Your task to perform on an android device: turn vacation reply on in the gmail app Image 0: 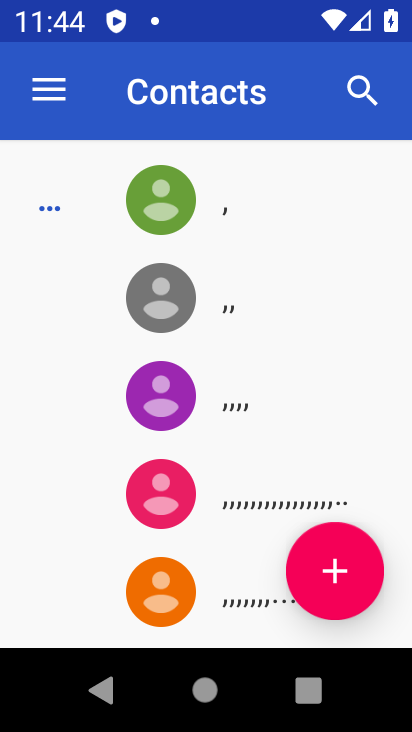
Step 0: press home button
Your task to perform on an android device: turn vacation reply on in the gmail app Image 1: 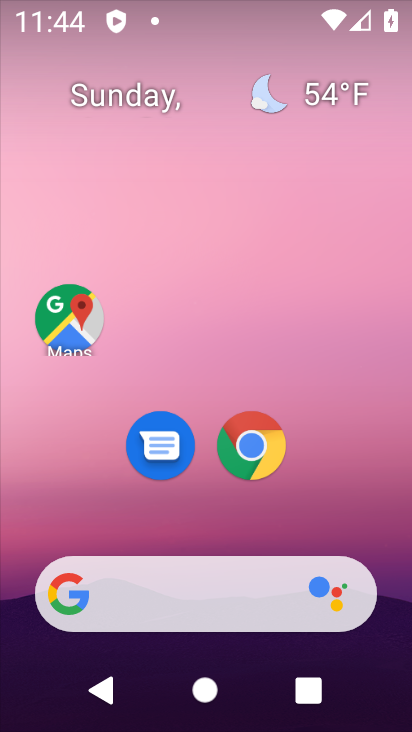
Step 1: drag from (334, 403) to (315, 119)
Your task to perform on an android device: turn vacation reply on in the gmail app Image 2: 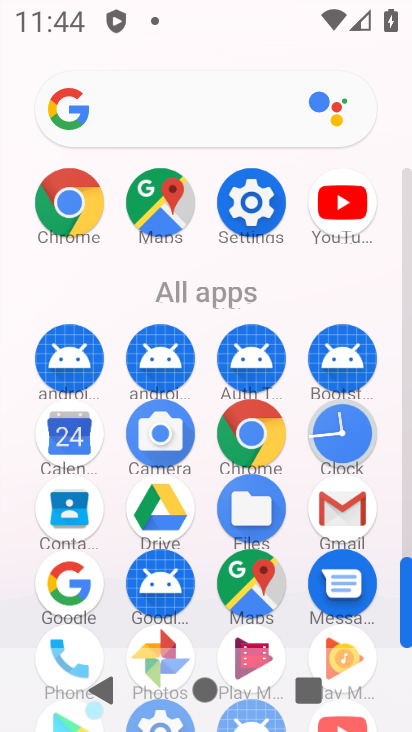
Step 2: click (344, 503)
Your task to perform on an android device: turn vacation reply on in the gmail app Image 3: 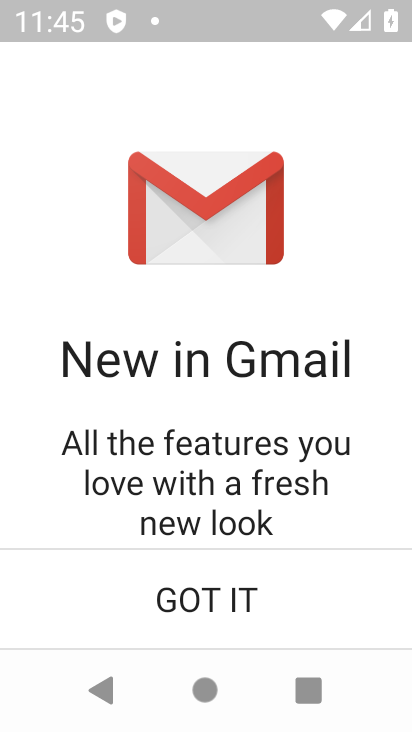
Step 3: click (234, 600)
Your task to perform on an android device: turn vacation reply on in the gmail app Image 4: 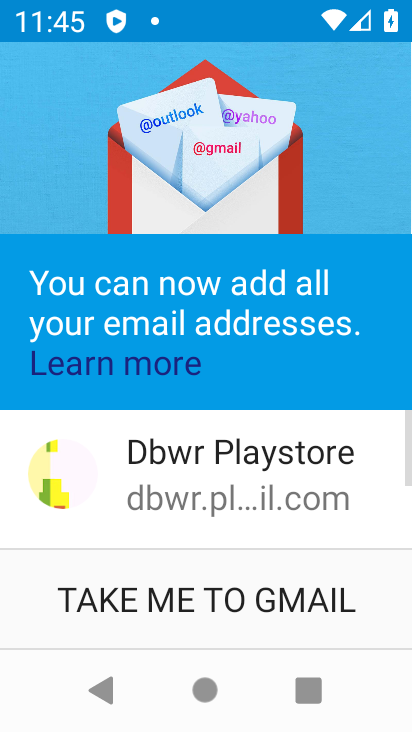
Step 4: click (235, 598)
Your task to perform on an android device: turn vacation reply on in the gmail app Image 5: 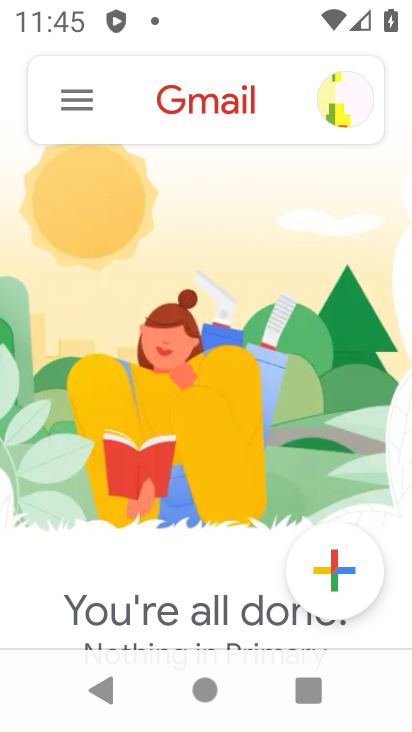
Step 5: click (80, 103)
Your task to perform on an android device: turn vacation reply on in the gmail app Image 6: 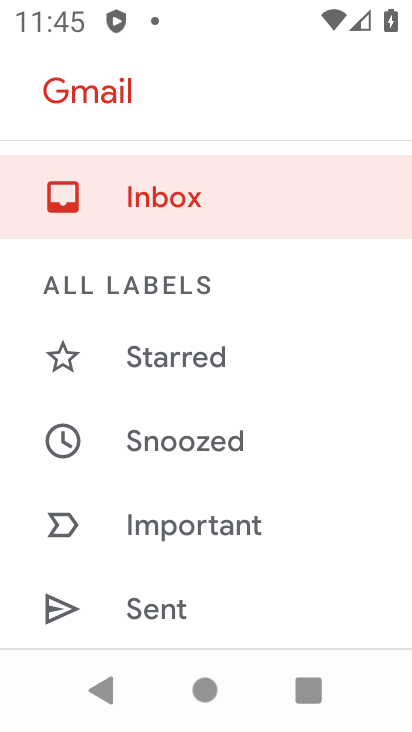
Step 6: drag from (215, 566) to (244, 225)
Your task to perform on an android device: turn vacation reply on in the gmail app Image 7: 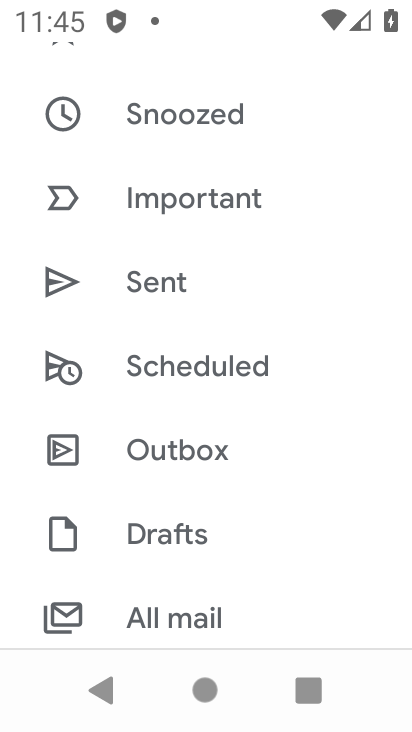
Step 7: drag from (239, 603) to (240, 193)
Your task to perform on an android device: turn vacation reply on in the gmail app Image 8: 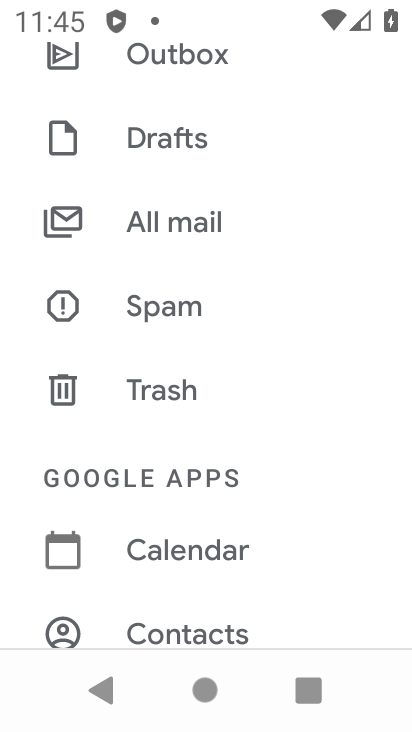
Step 8: drag from (246, 595) to (233, 213)
Your task to perform on an android device: turn vacation reply on in the gmail app Image 9: 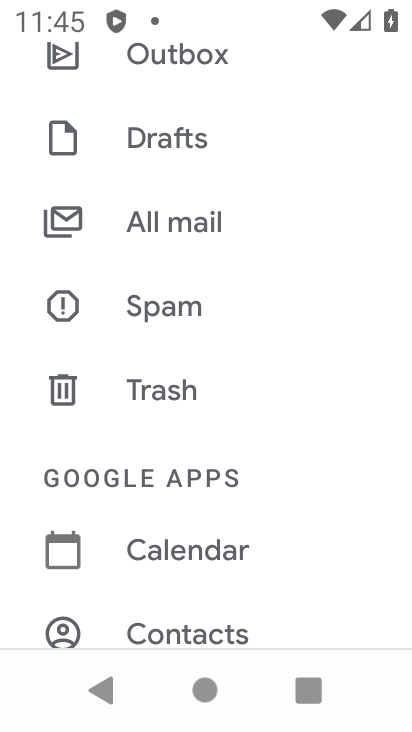
Step 9: drag from (291, 535) to (256, 222)
Your task to perform on an android device: turn vacation reply on in the gmail app Image 10: 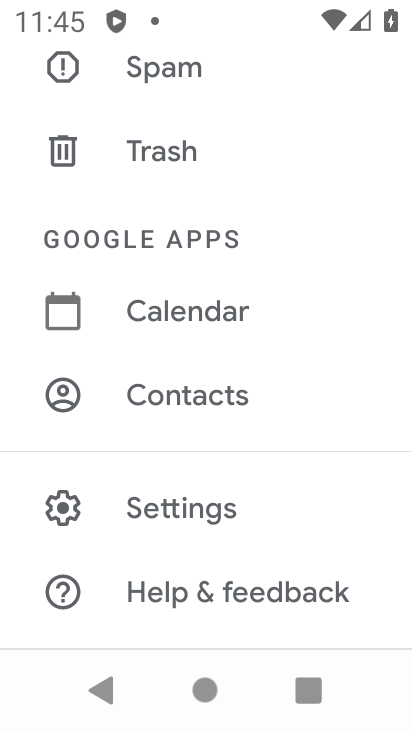
Step 10: click (199, 500)
Your task to perform on an android device: turn vacation reply on in the gmail app Image 11: 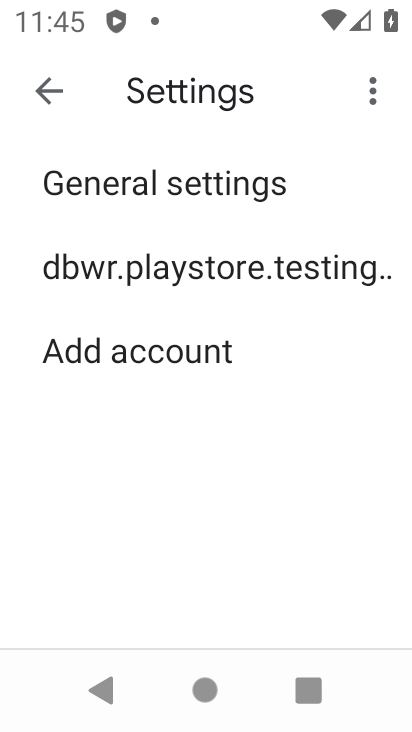
Step 11: click (260, 272)
Your task to perform on an android device: turn vacation reply on in the gmail app Image 12: 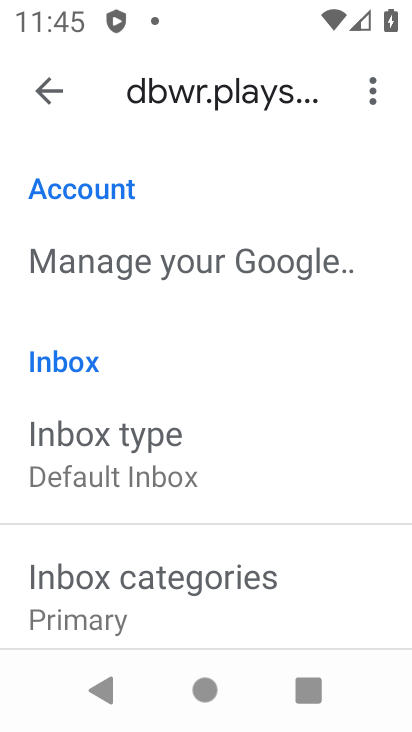
Step 12: drag from (307, 612) to (310, 246)
Your task to perform on an android device: turn vacation reply on in the gmail app Image 13: 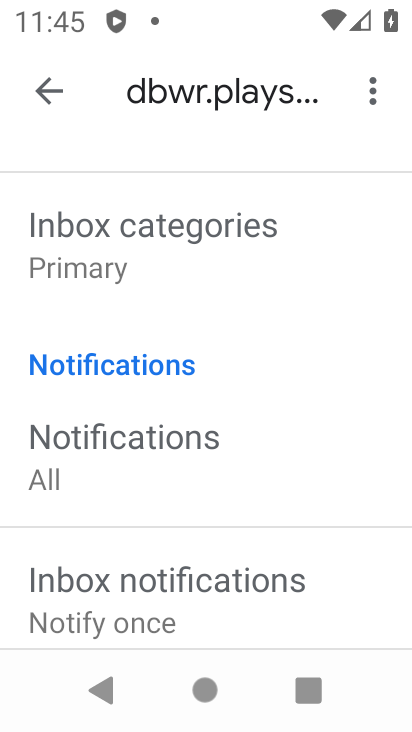
Step 13: drag from (323, 620) to (325, 227)
Your task to perform on an android device: turn vacation reply on in the gmail app Image 14: 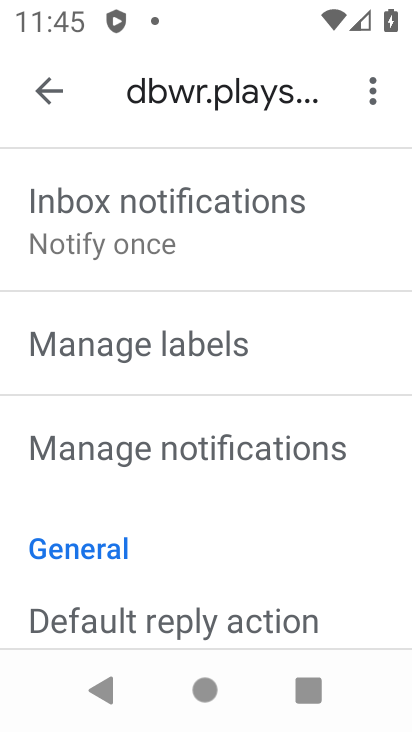
Step 14: drag from (318, 503) to (322, 227)
Your task to perform on an android device: turn vacation reply on in the gmail app Image 15: 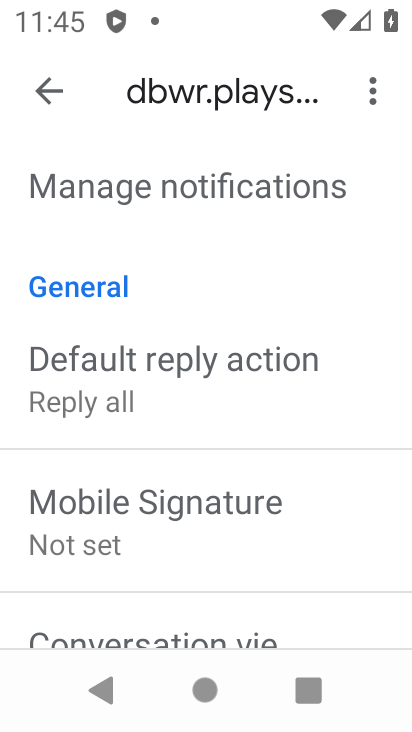
Step 15: drag from (297, 544) to (329, 234)
Your task to perform on an android device: turn vacation reply on in the gmail app Image 16: 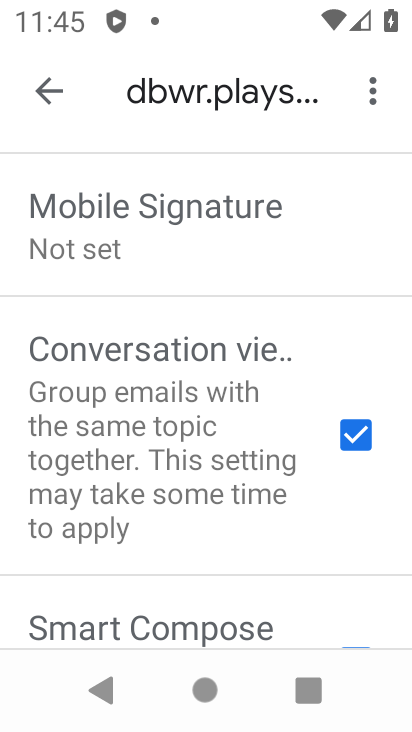
Step 16: drag from (282, 505) to (283, 236)
Your task to perform on an android device: turn vacation reply on in the gmail app Image 17: 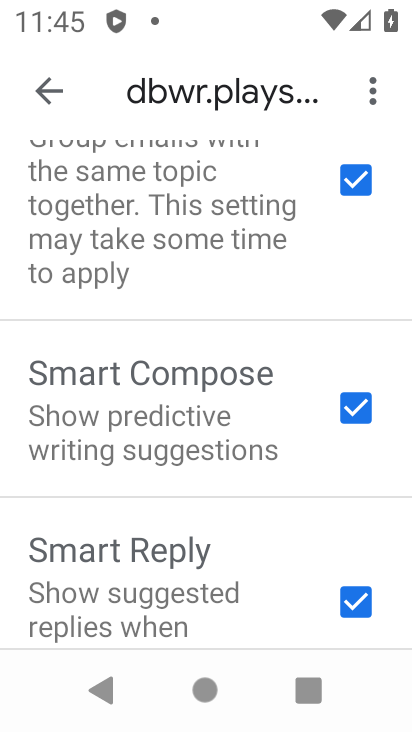
Step 17: drag from (282, 574) to (256, 283)
Your task to perform on an android device: turn vacation reply on in the gmail app Image 18: 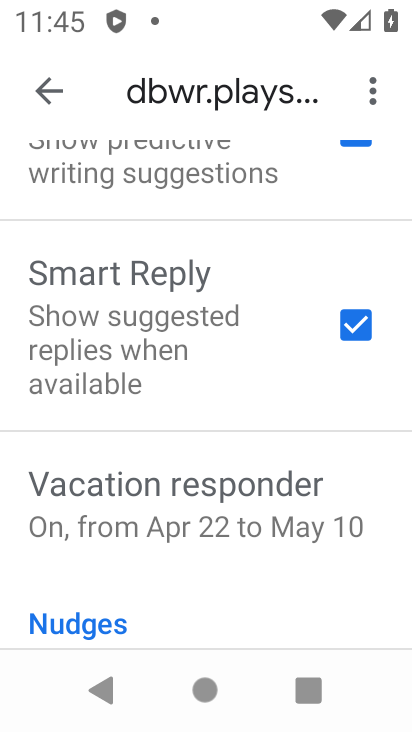
Step 18: click (238, 521)
Your task to perform on an android device: turn vacation reply on in the gmail app Image 19: 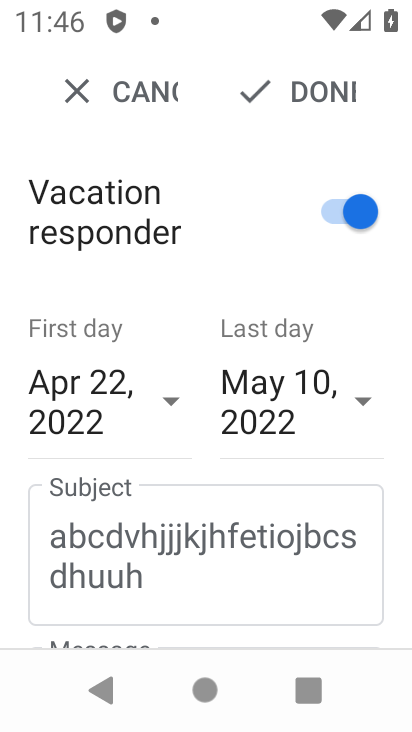
Step 19: task complete